Your task to perform on an android device: Open wifi settings Image 0: 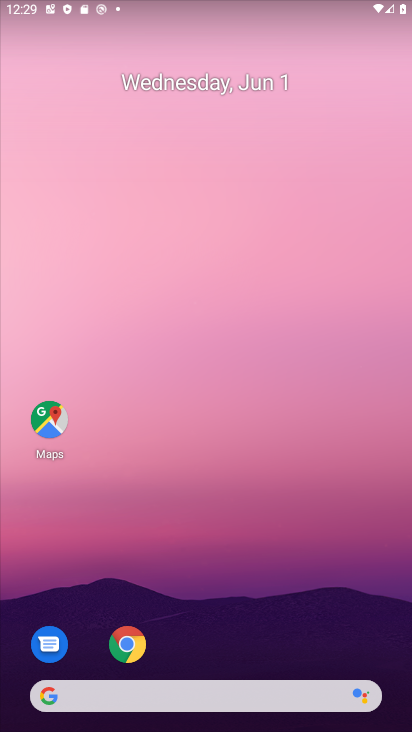
Step 0: drag from (339, 614) to (271, 84)
Your task to perform on an android device: Open wifi settings Image 1: 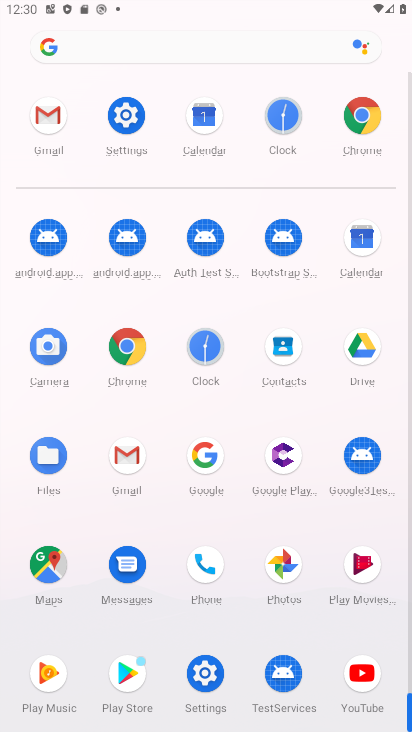
Step 1: click (193, 689)
Your task to perform on an android device: Open wifi settings Image 2: 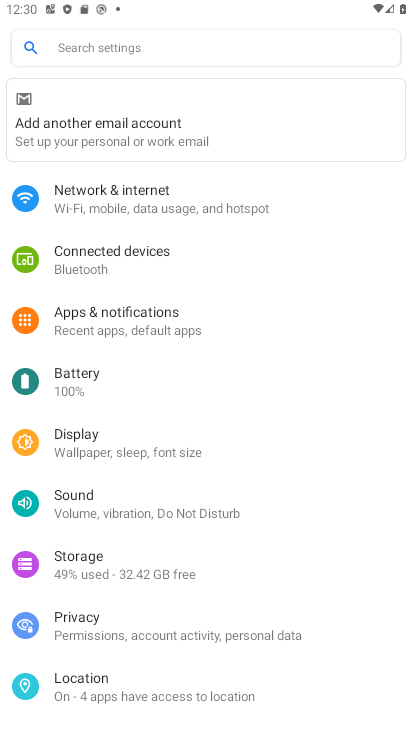
Step 2: click (148, 205)
Your task to perform on an android device: Open wifi settings Image 3: 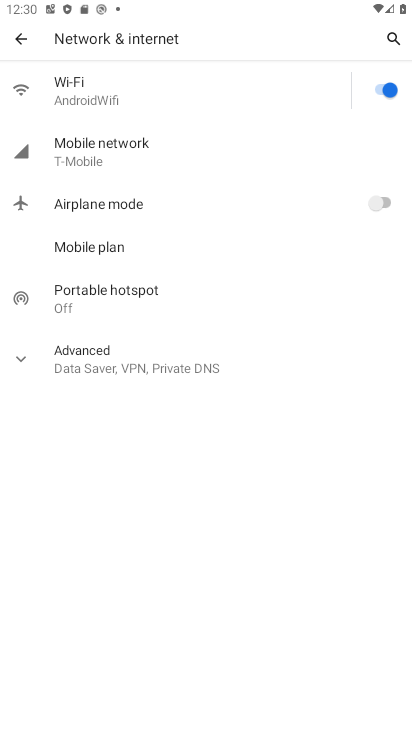
Step 3: task complete